Your task to perform on an android device: read, delete, or share a saved page in the chrome app Image 0: 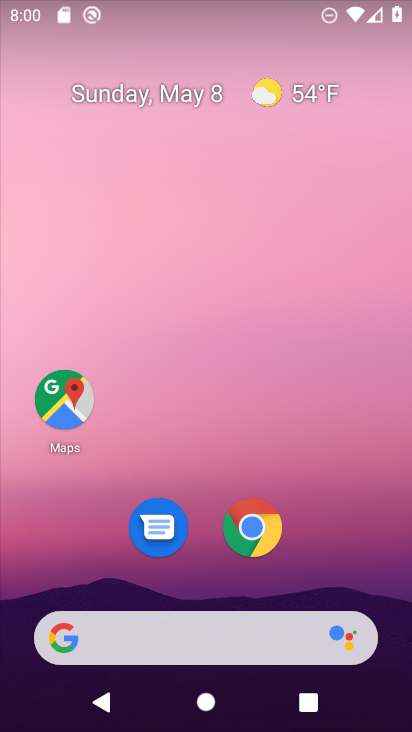
Step 0: drag from (316, 546) to (327, 136)
Your task to perform on an android device: read, delete, or share a saved page in the chrome app Image 1: 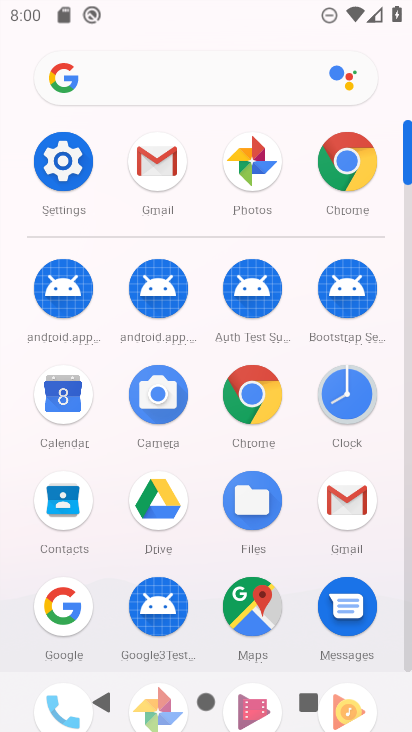
Step 1: click (254, 405)
Your task to perform on an android device: read, delete, or share a saved page in the chrome app Image 2: 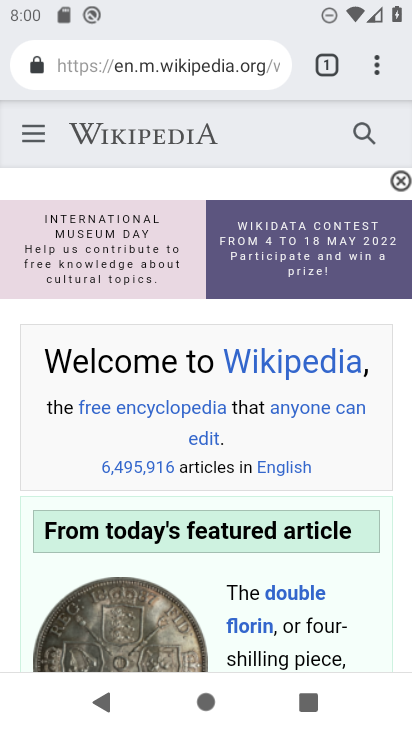
Step 2: task complete